Your task to perform on an android device: Go to location settings Image 0: 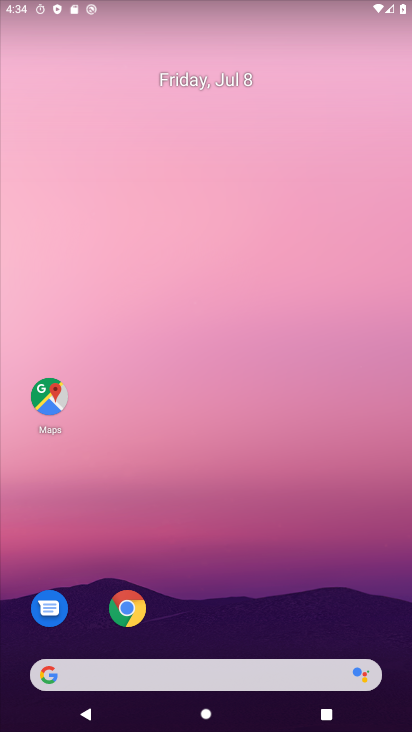
Step 0: press home button
Your task to perform on an android device: Go to location settings Image 1: 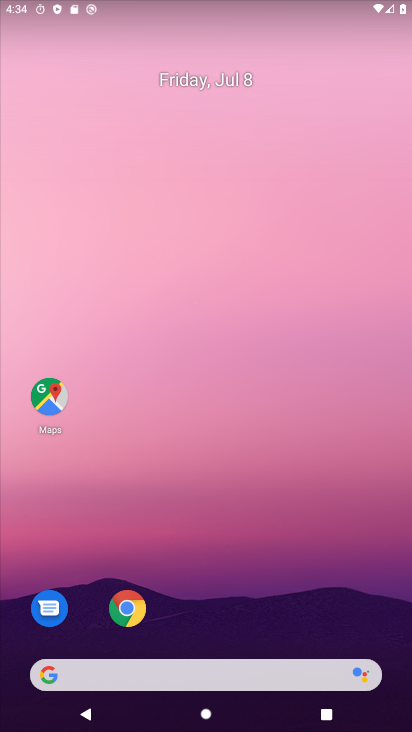
Step 1: press home button
Your task to perform on an android device: Go to location settings Image 2: 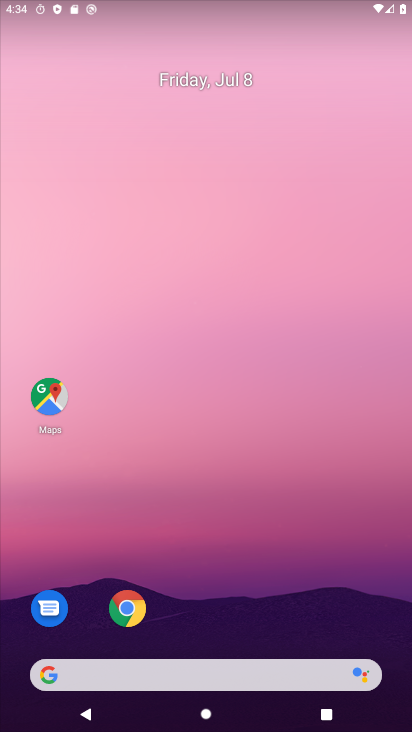
Step 2: press home button
Your task to perform on an android device: Go to location settings Image 3: 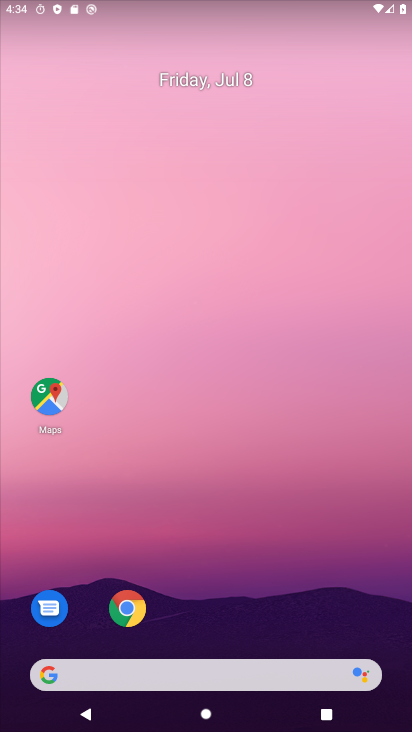
Step 3: drag from (230, 559) to (236, 424)
Your task to perform on an android device: Go to location settings Image 4: 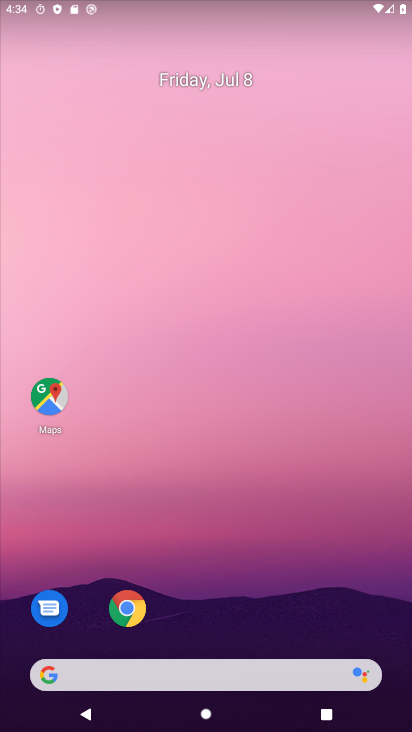
Step 4: drag from (270, 547) to (239, 26)
Your task to perform on an android device: Go to location settings Image 5: 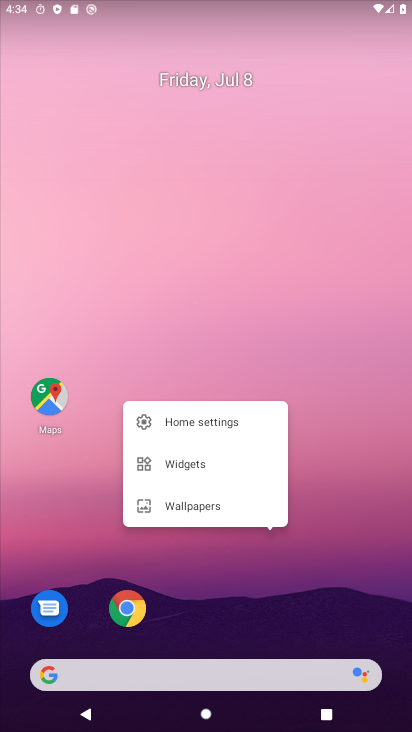
Step 5: drag from (333, 565) to (273, 107)
Your task to perform on an android device: Go to location settings Image 6: 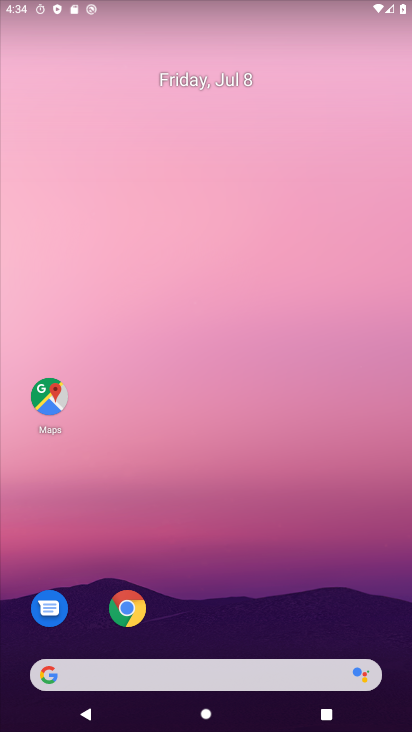
Step 6: drag from (213, 581) to (381, 1)
Your task to perform on an android device: Go to location settings Image 7: 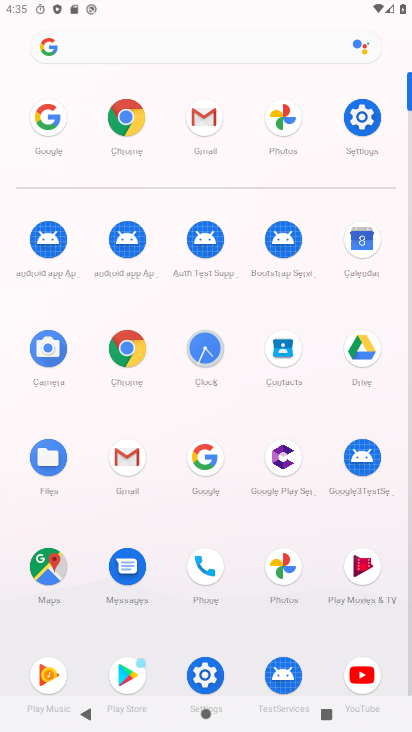
Step 7: click (363, 113)
Your task to perform on an android device: Go to location settings Image 8: 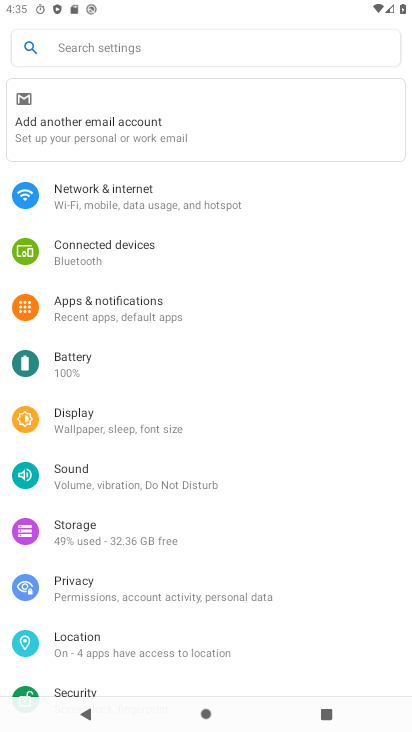
Step 8: click (162, 636)
Your task to perform on an android device: Go to location settings Image 9: 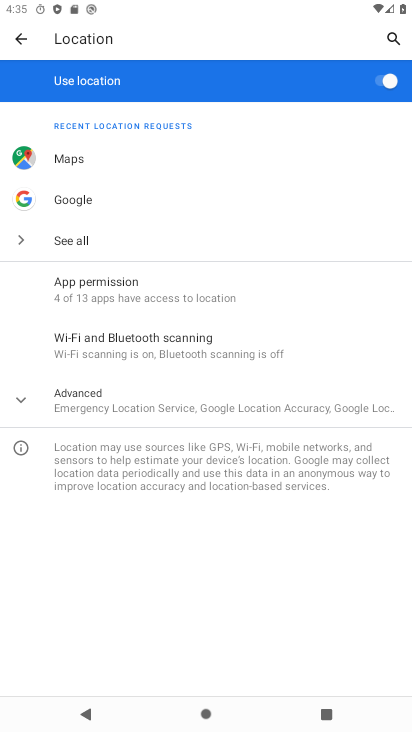
Step 9: task complete